Your task to perform on an android device: Open settings on Google Maps Image 0: 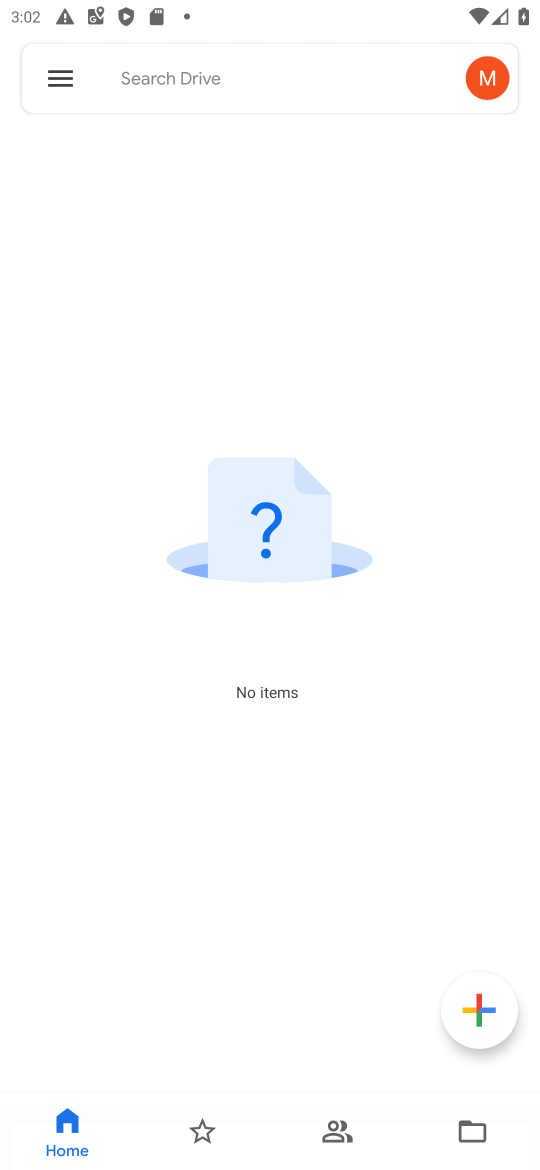
Step 0: press home button
Your task to perform on an android device: Open settings on Google Maps Image 1: 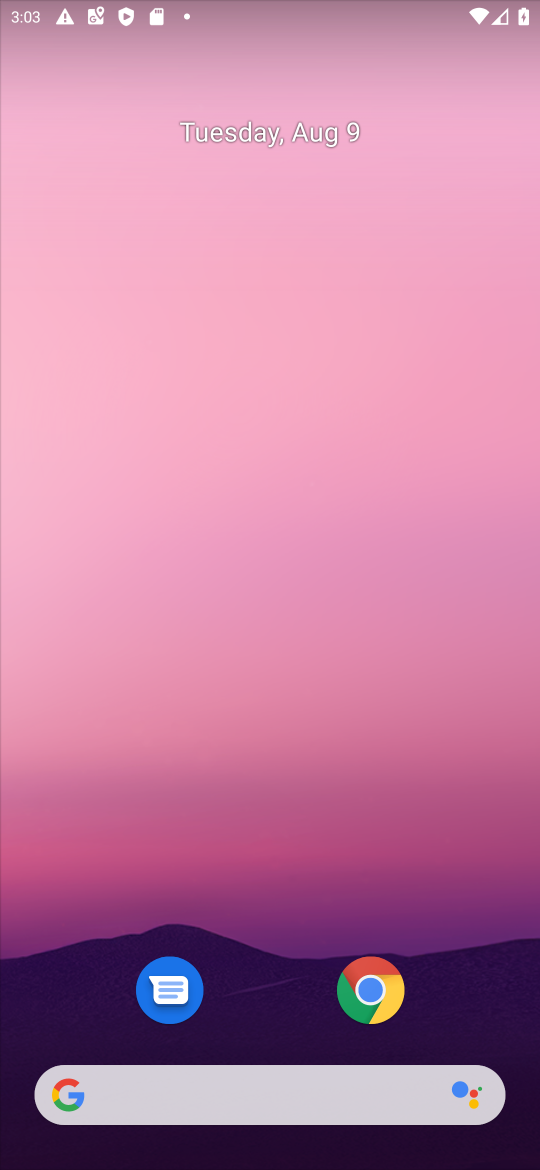
Step 1: drag from (391, 1100) to (410, 33)
Your task to perform on an android device: Open settings on Google Maps Image 2: 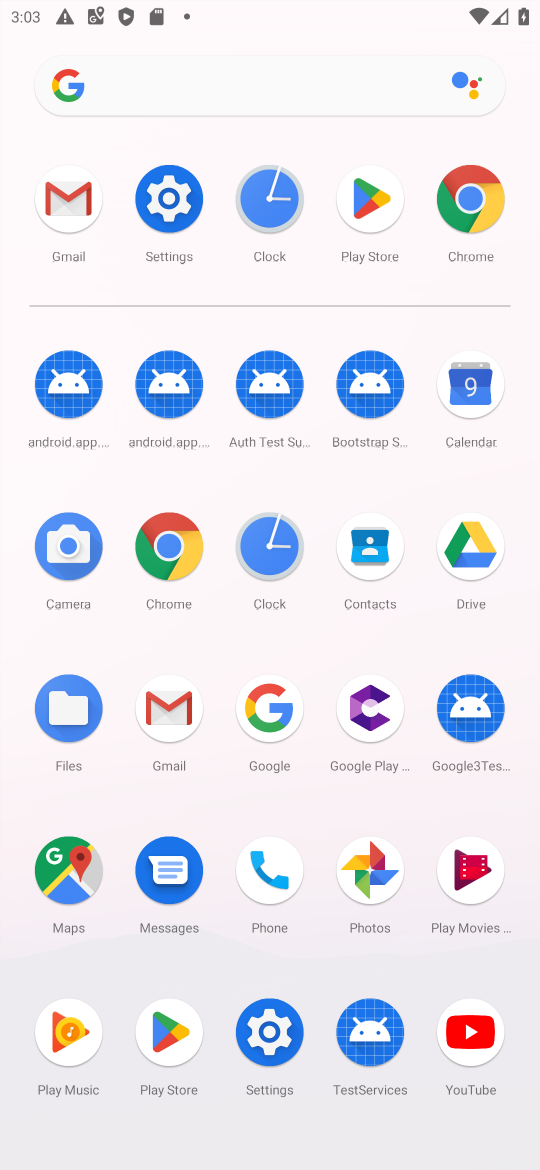
Step 2: click (73, 873)
Your task to perform on an android device: Open settings on Google Maps Image 3: 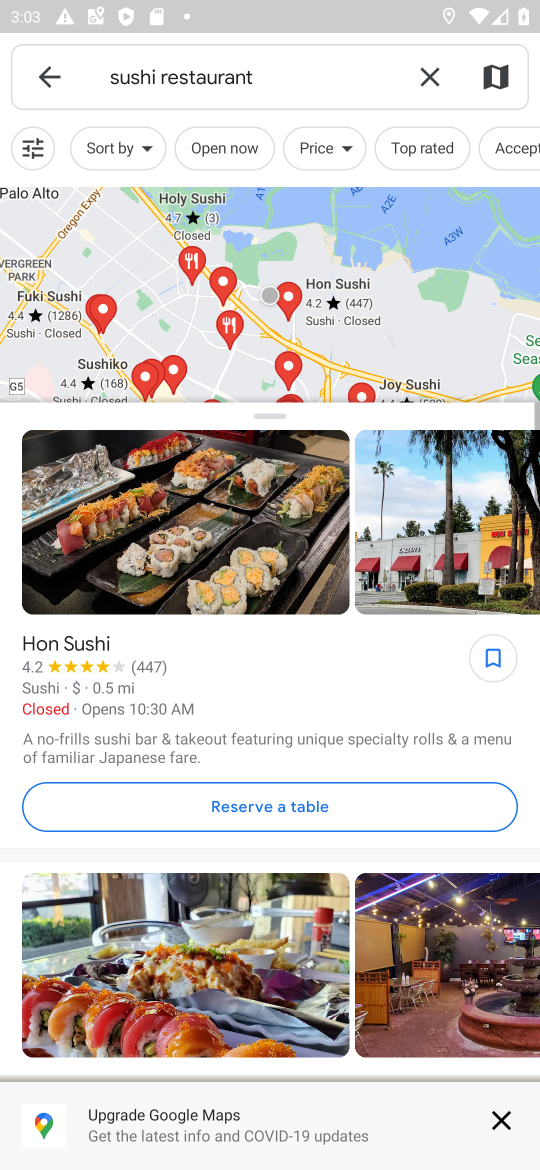
Step 3: press back button
Your task to perform on an android device: Open settings on Google Maps Image 4: 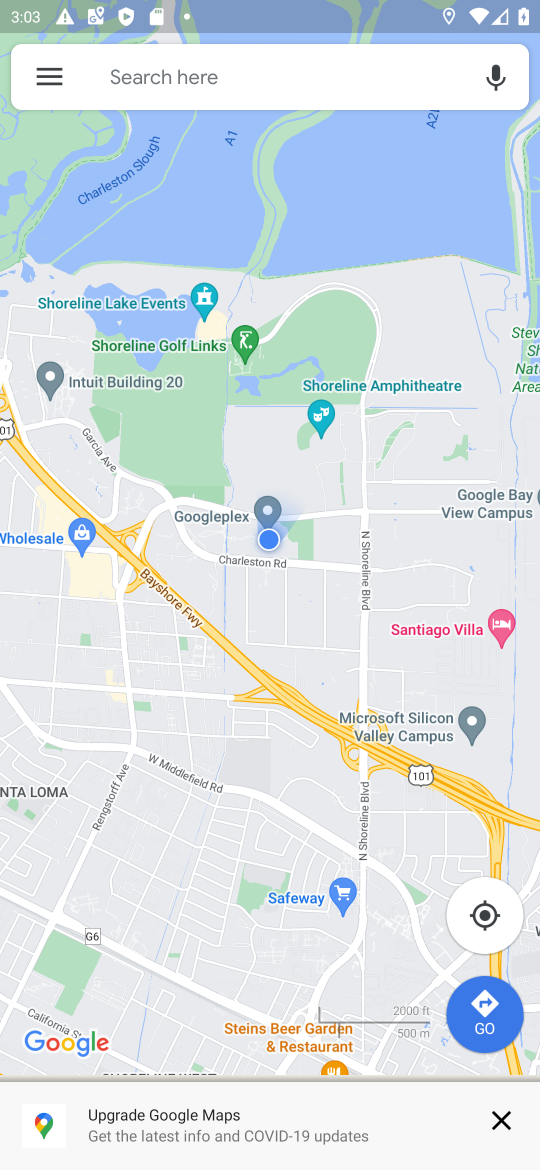
Step 4: click (29, 77)
Your task to perform on an android device: Open settings on Google Maps Image 5: 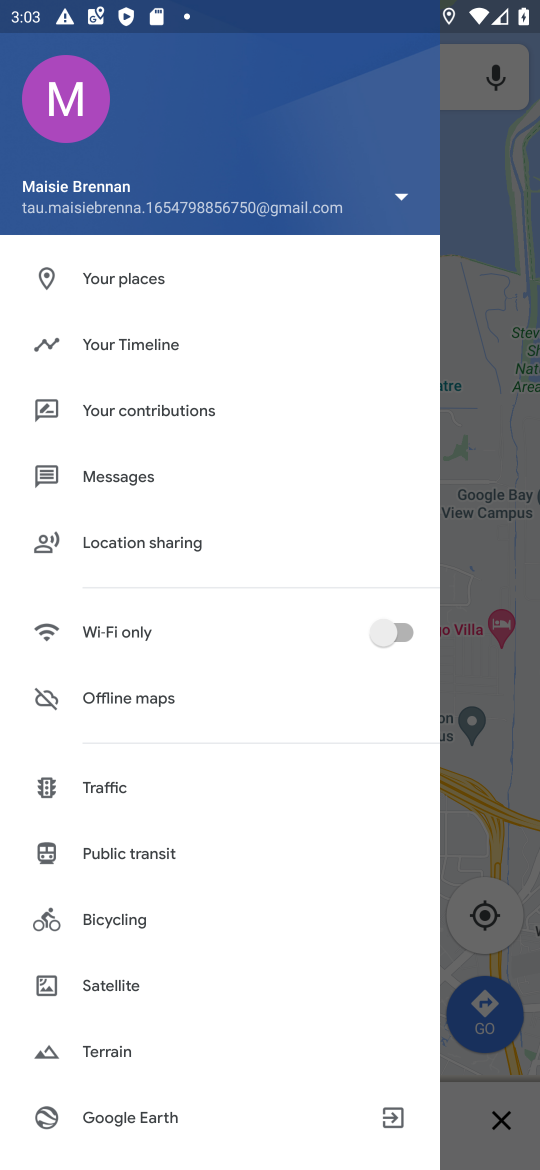
Step 5: click (185, 336)
Your task to perform on an android device: Open settings on Google Maps Image 6: 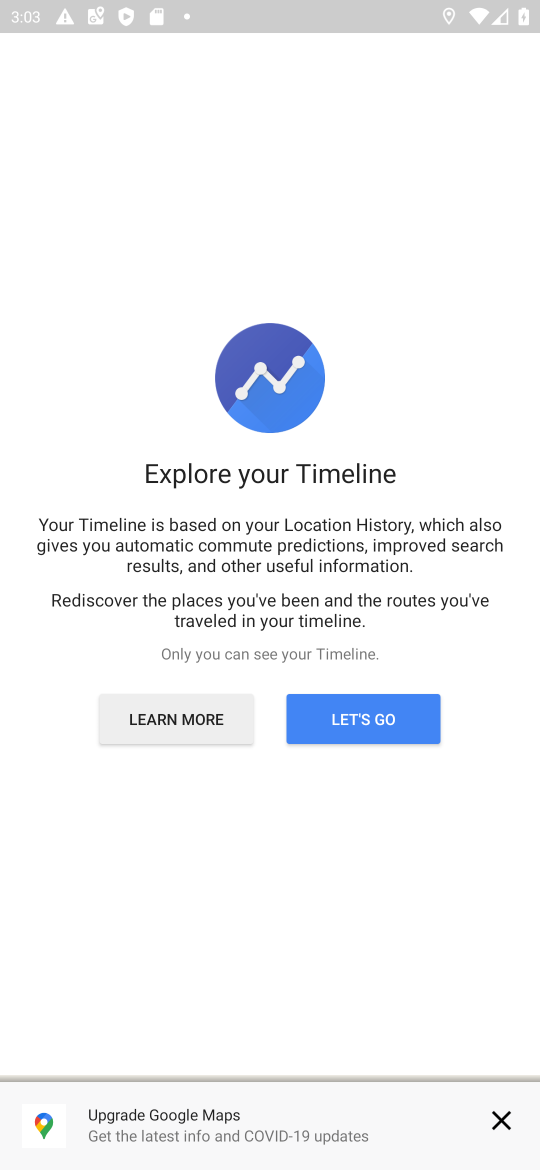
Step 6: click (320, 703)
Your task to perform on an android device: Open settings on Google Maps Image 7: 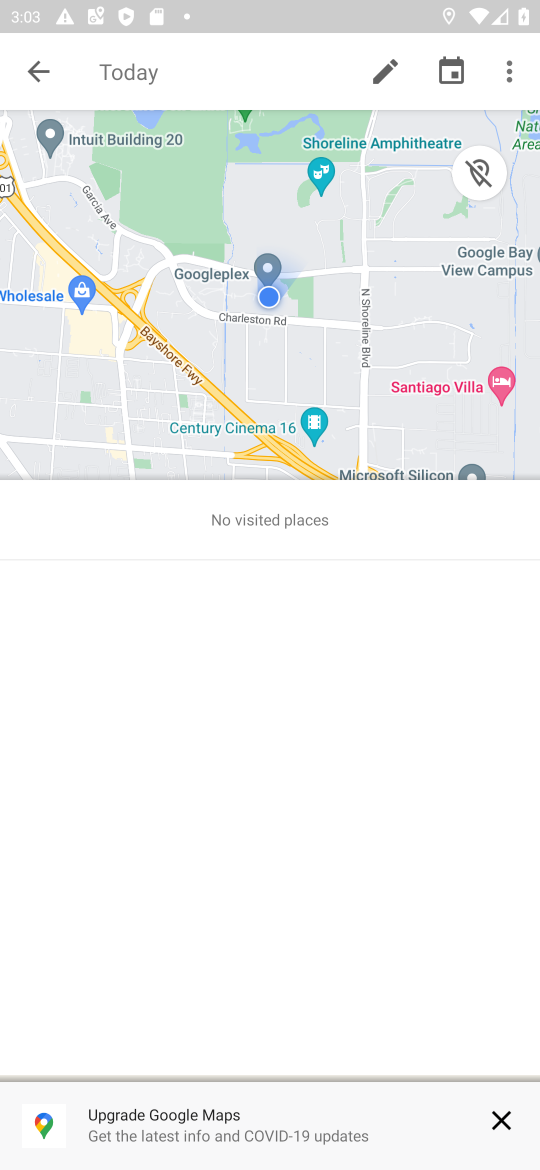
Step 7: click (507, 67)
Your task to perform on an android device: Open settings on Google Maps Image 8: 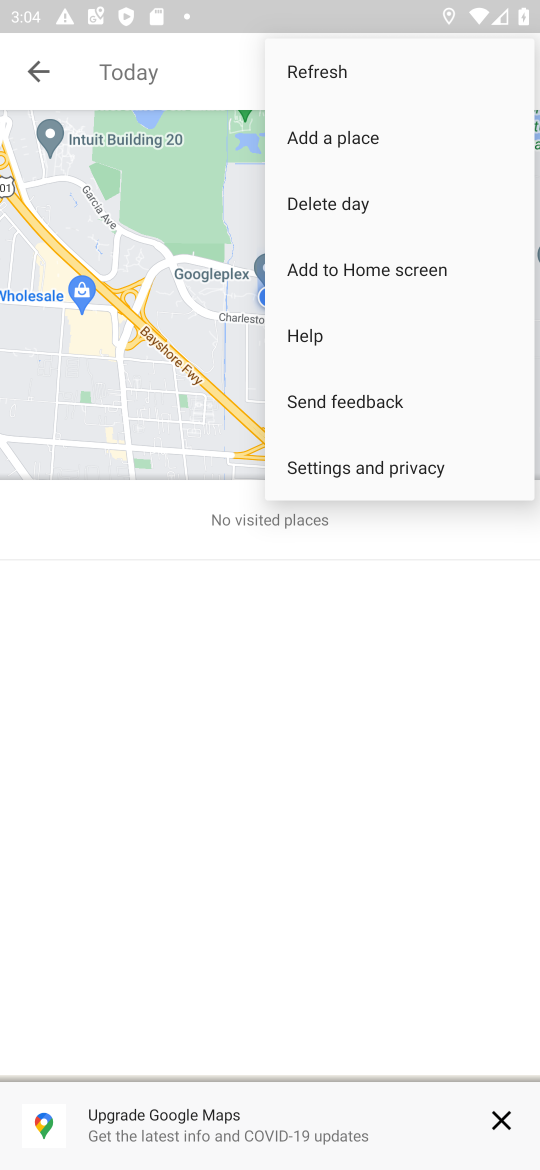
Step 8: click (366, 458)
Your task to perform on an android device: Open settings on Google Maps Image 9: 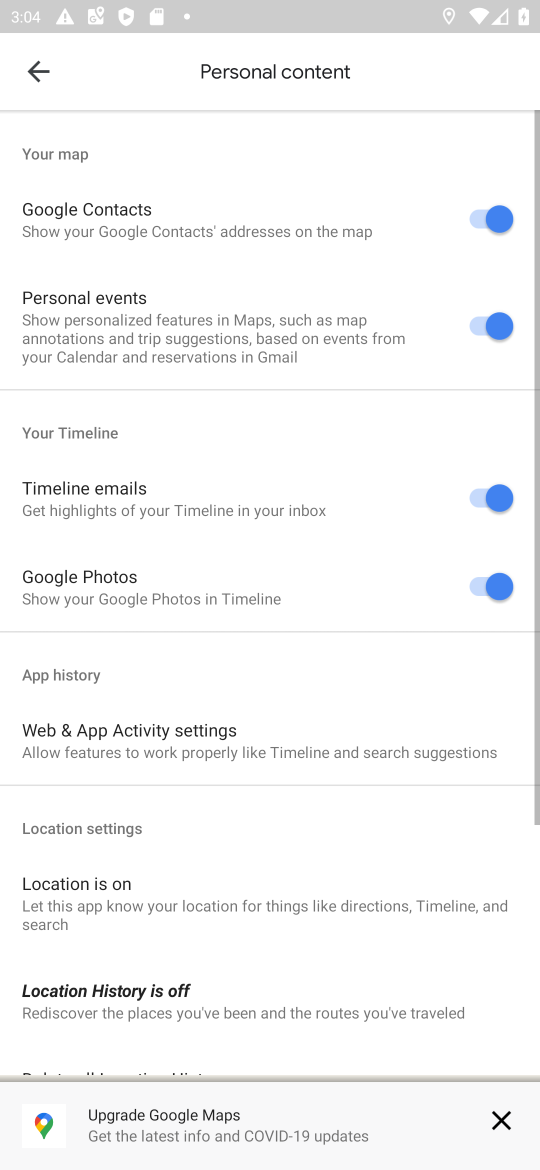
Step 9: task complete